Your task to perform on an android device: turn on the 12-hour format for clock Image 0: 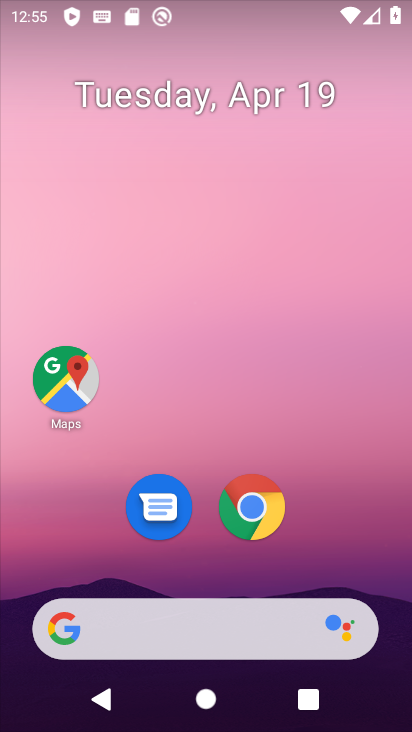
Step 0: drag from (209, 569) to (224, 47)
Your task to perform on an android device: turn on the 12-hour format for clock Image 1: 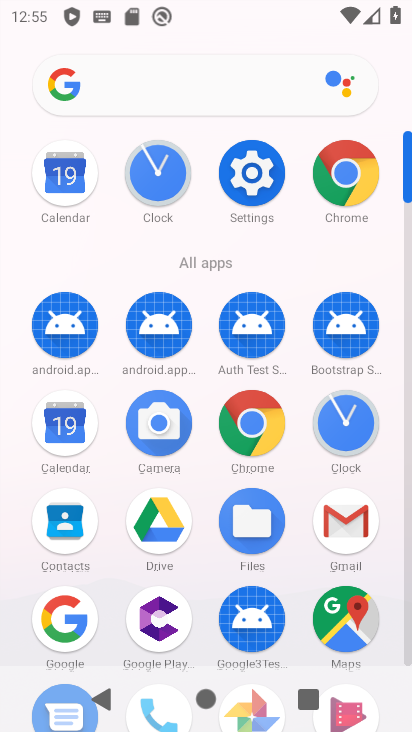
Step 1: click (342, 416)
Your task to perform on an android device: turn on the 12-hour format for clock Image 2: 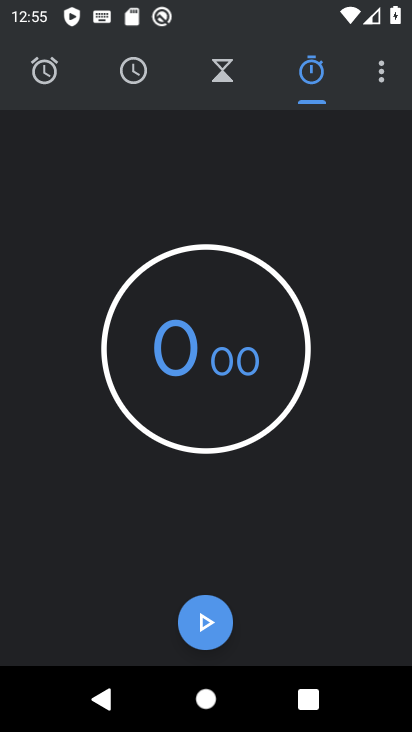
Step 2: click (382, 67)
Your task to perform on an android device: turn on the 12-hour format for clock Image 3: 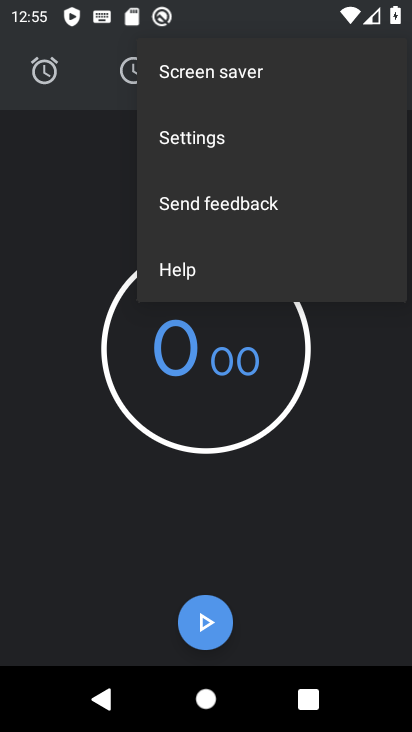
Step 3: click (223, 138)
Your task to perform on an android device: turn on the 12-hour format for clock Image 4: 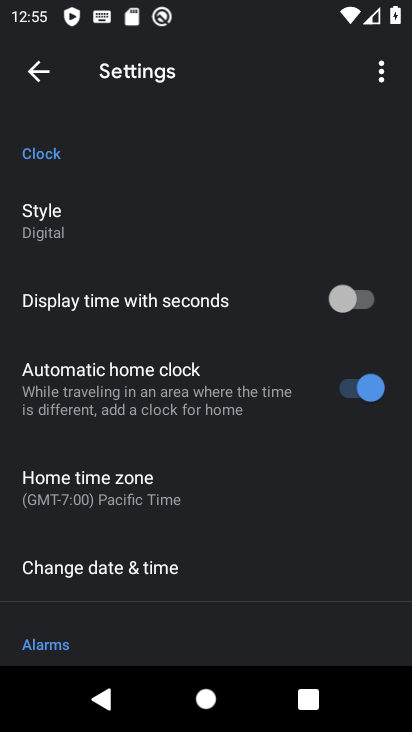
Step 4: click (199, 568)
Your task to perform on an android device: turn on the 12-hour format for clock Image 5: 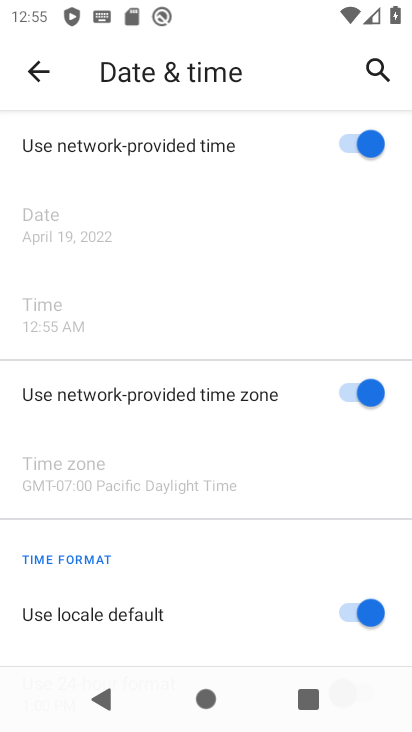
Step 5: task complete